Your task to perform on an android device: Open the map Image 0: 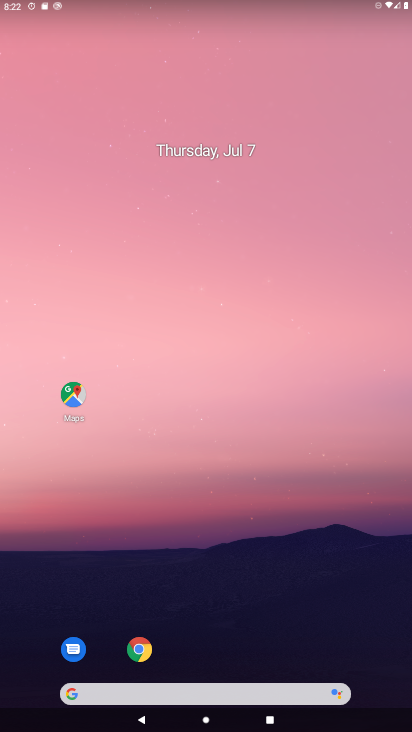
Step 0: press home button
Your task to perform on an android device: Open the map Image 1: 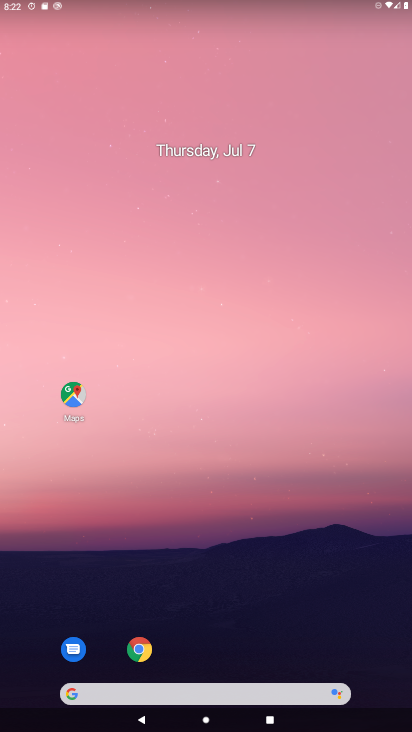
Step 1: click (73, 388)
Your task to perform on an android device: Open the map Image 2: 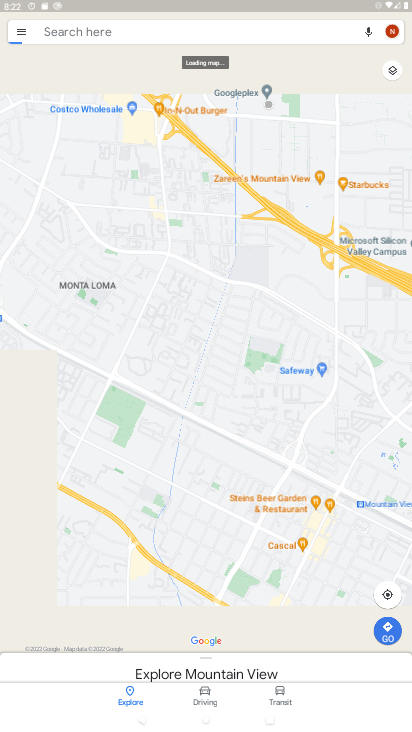
Step 2: drag from (200, 479) to (227, 266)
Your task to perform on an android device: Open the map Image 3: 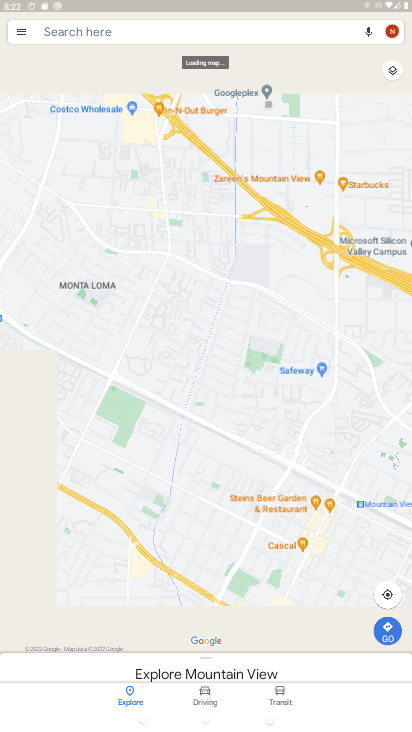
Step 3: click (21, 31)
Your task to perform on an android device: Open the map Image 4: 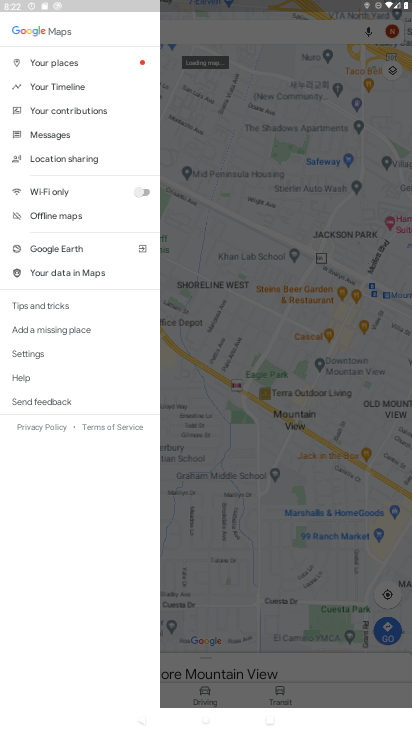
Step 4: task complete